Your task to perform on an android device: Go to Reddit.com Image 0: 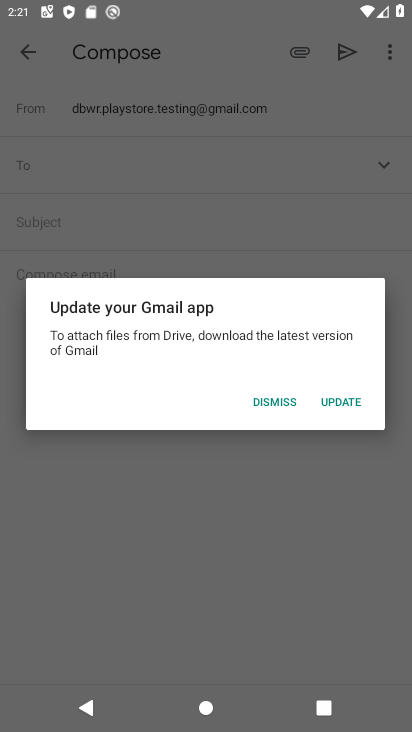
Step 0: press home button
Your task to perform on an android device: Go to Reddit.com Image 1: 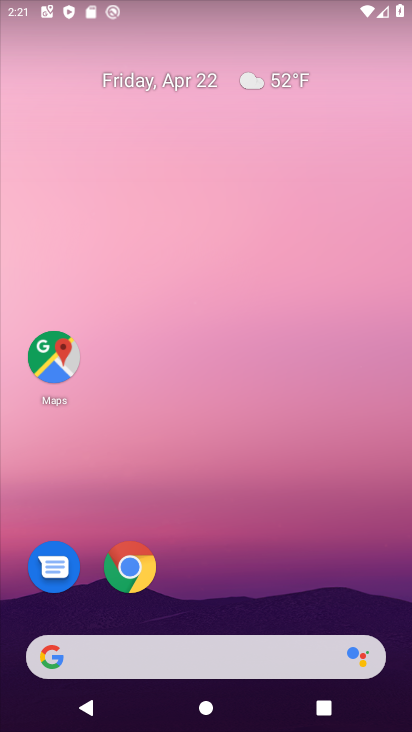
Step 1: click (132, 554)
Your task to perform on an android device: Go to Reddit.com Image 2: 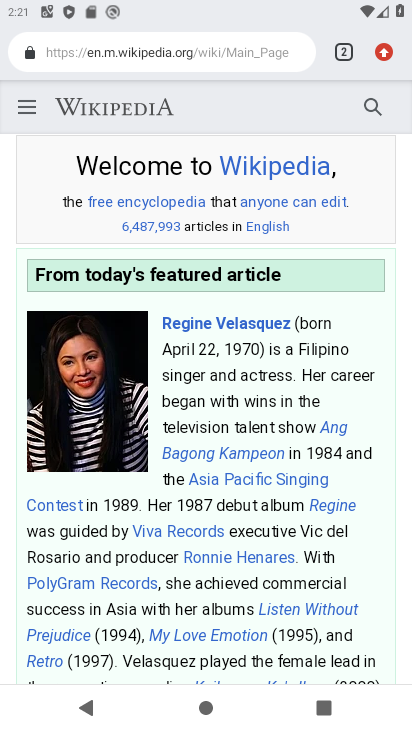
Step 2: click (246, 46)
Your task to perform on an android device: Go to Reddit.com Image 3: 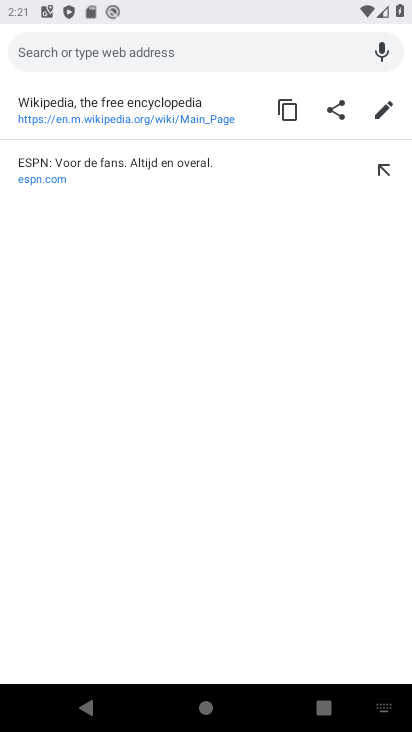
Step 3: type "Reddit.com"
Your task to perform on an android device: Go to Reddit.com Image 4: 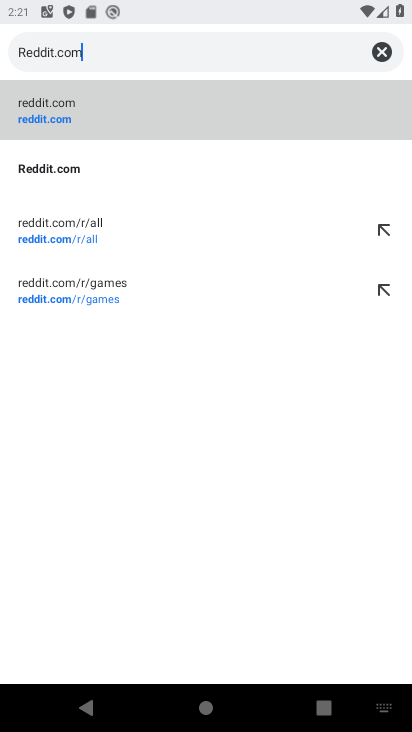
Step 4: click (180, 124)
Your task to perform on an android device: Go to Reddit.com Image 5: 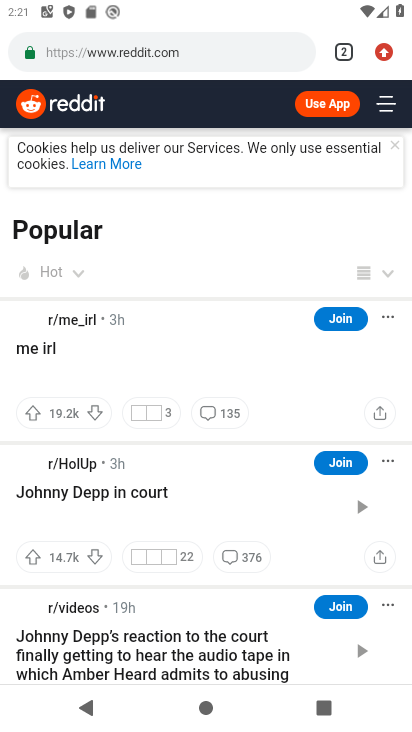
Step 5: task complete